Your task to perform on an android device: turn off picture-in-picture Image 0: 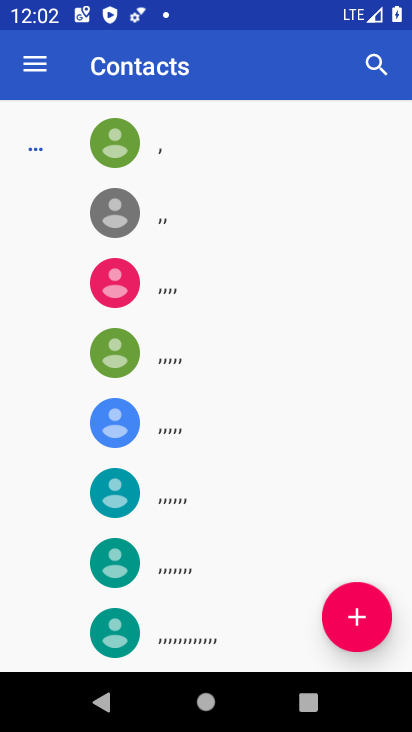
Step 0: drag from (294, 672) to (258, 166)
Your task to perform on an android device: turn off picture-in-picture Image 1: 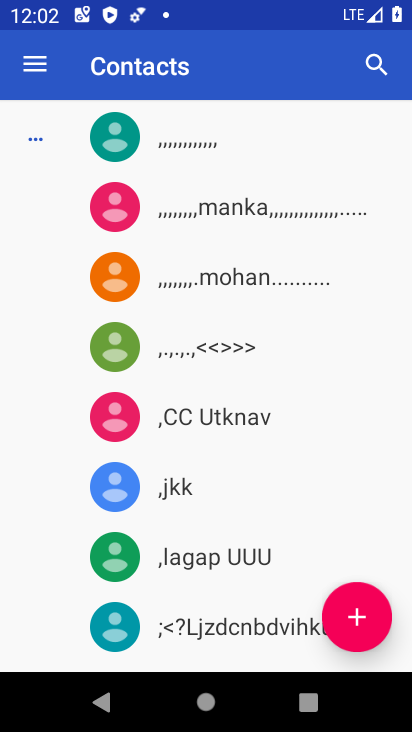
Step 1: press home button
Your task to perform on an android device: turn off picture-in-picture Image 2: 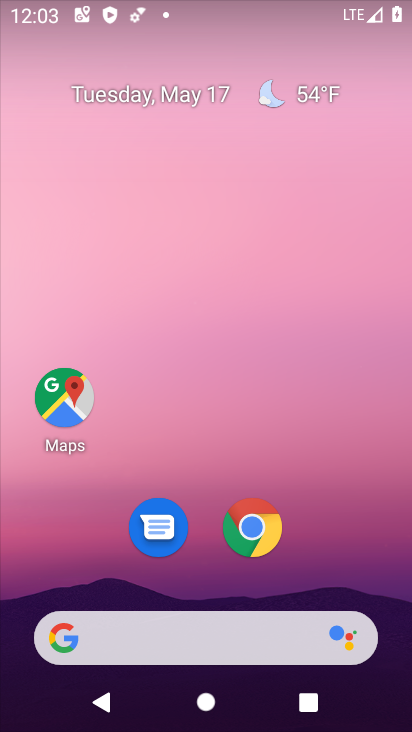
Step 2: drag from (272, 674) to (242, 209)
Your task to perform on an android device: turn off picture-in-picture Image 3: 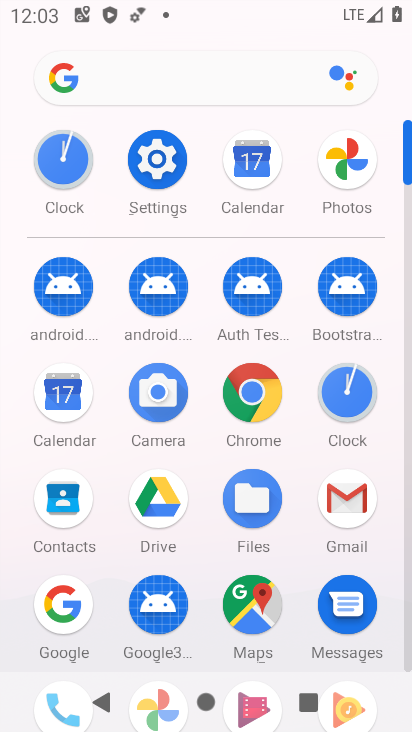
Step 3: click (170, 153)
Your task to perform on an android device: turn off picture-in-picture Image 4: 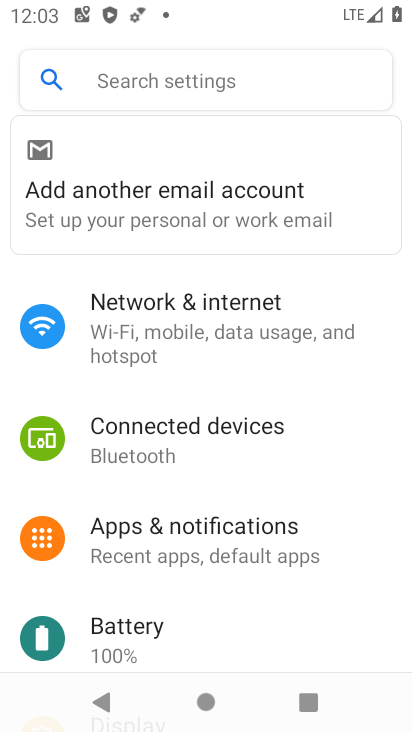
Step 4: click (172, 84)
Your task to perform on an android device: turn off picture-in-picture Image 5: 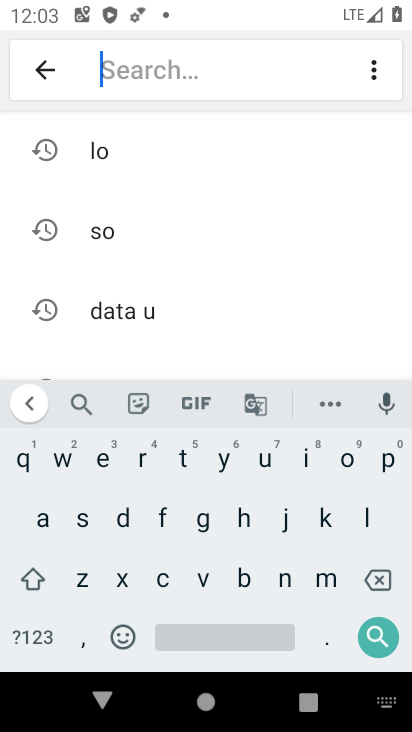
Step 5: click (378, 459)
Your task to perform on an android device: turn off picture-in-picture Image 6: 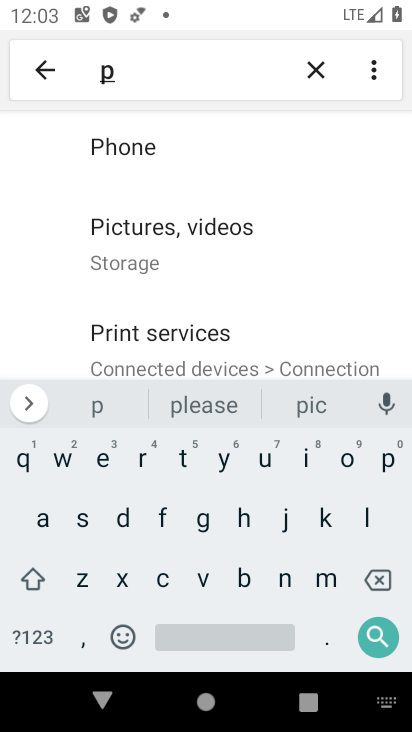
Step 6: click (303, 470)
Your task to perform on an android device: turn off picture-in-picture Image 7: 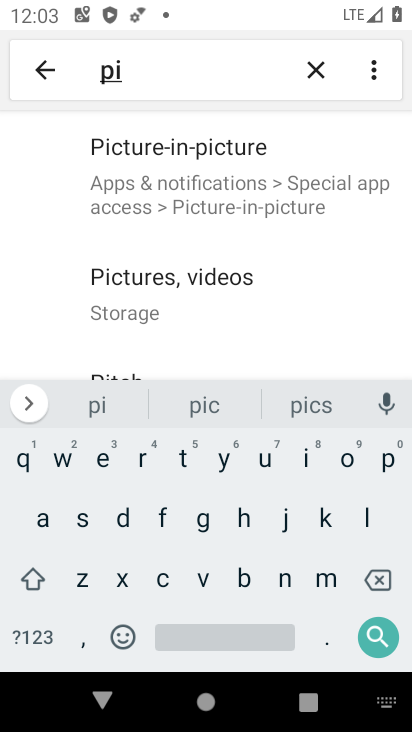
Step 7: click (179, 195)
Your task to perform on an android device: turn off picture-in-picture Image 8: 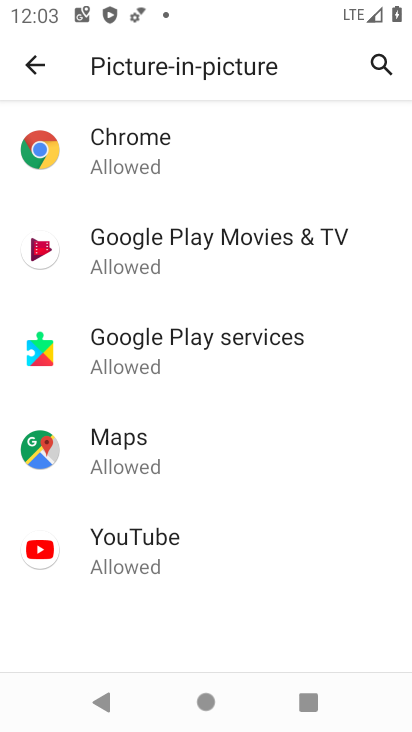
Step 8: task complete